Your task to perform on an android device: manage bookmarks in the chrome app Image 0: 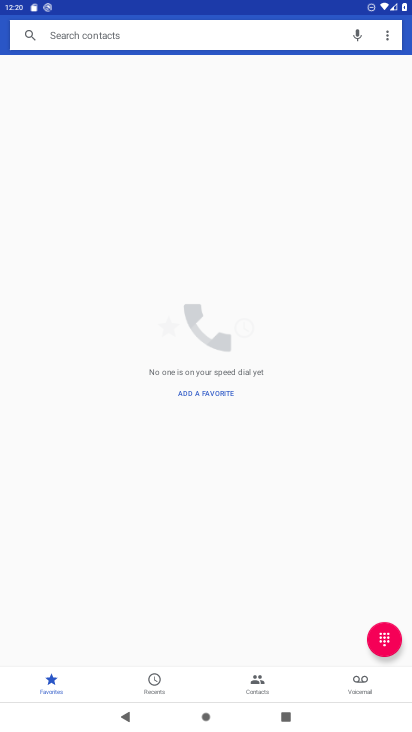
Step 0: press home button
Your task to perform on an android device: manage bookmarks in the chrome app Image 1: 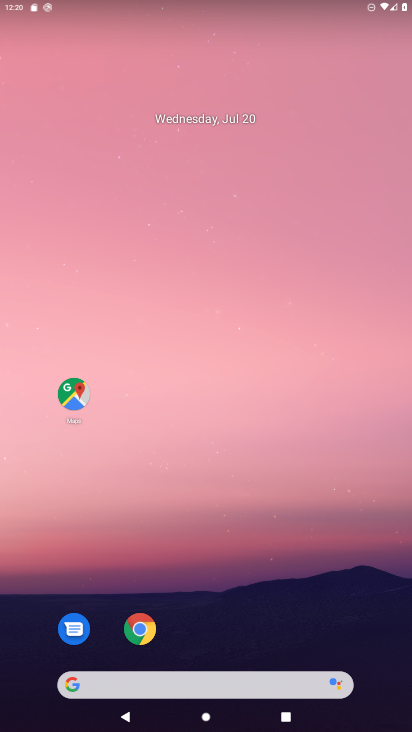
Step 1: click (132, 631)
Your task to perform on an android device: manage bookmarks in the chrome app Image 2: 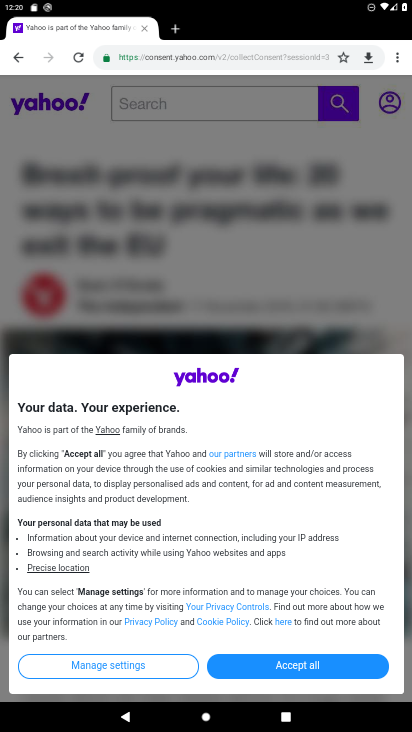
Step 2: click (404, 62)
Your task to perform on an android device: manage bookmarks in the chrome app Image 3: 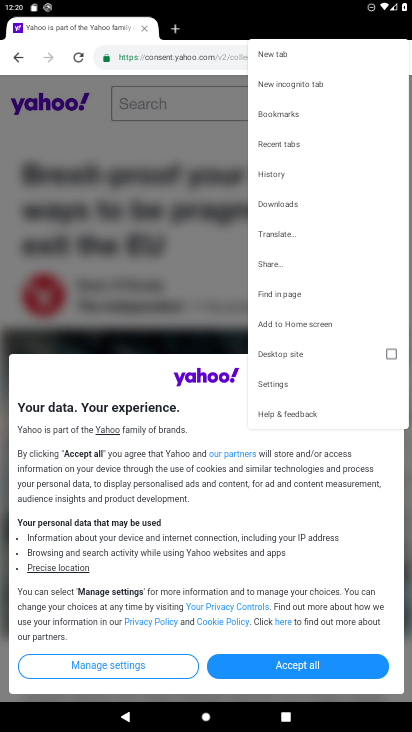
Step 3: click (281, 114)
Your task to perform on an android device: manage bookmarks in the chrome app Image 4: 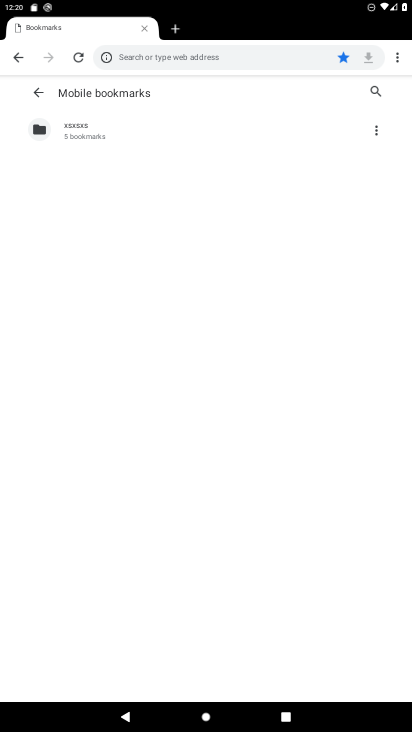
Step 4: click (376, 129)
Your task to perform on an android device: manage bookmarks in the chrome app Image 5: 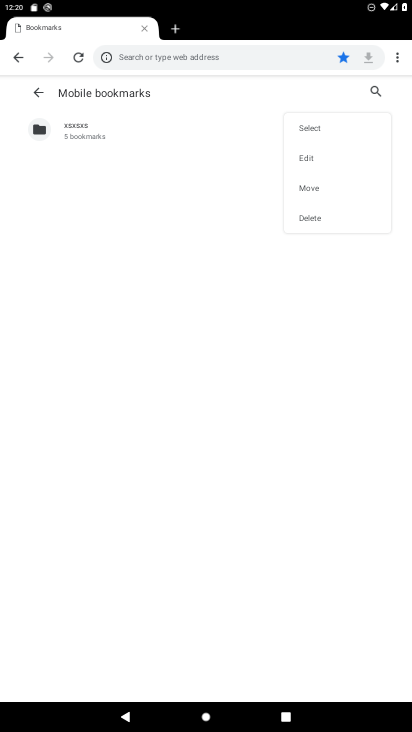
Step 5: click (307, 222)
Your task to perform on an android device: manage bookmarks in the chrome app Image 6: 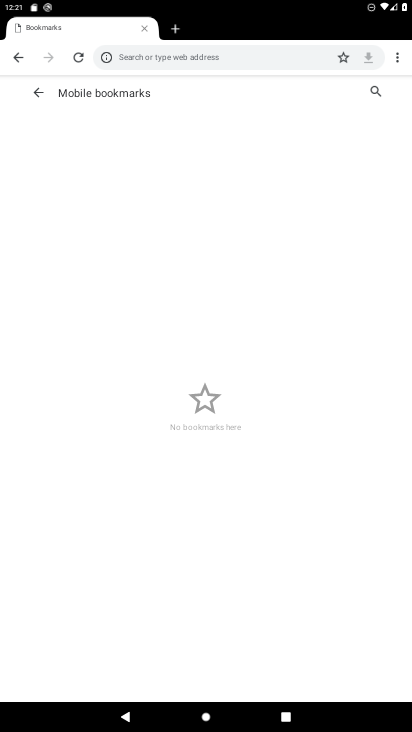
Step 6: task complete